Your task to perform on an android device: turn on showing notifications on the lock screen Image 0: 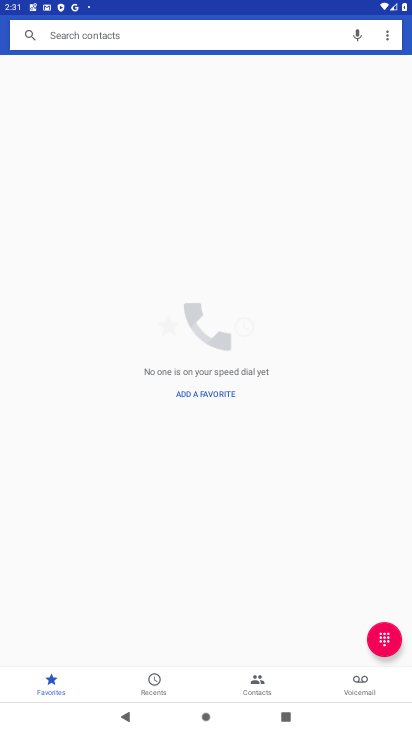
Step 0: task complete